Your task to perform on an android device: Show me recent news Image 0: 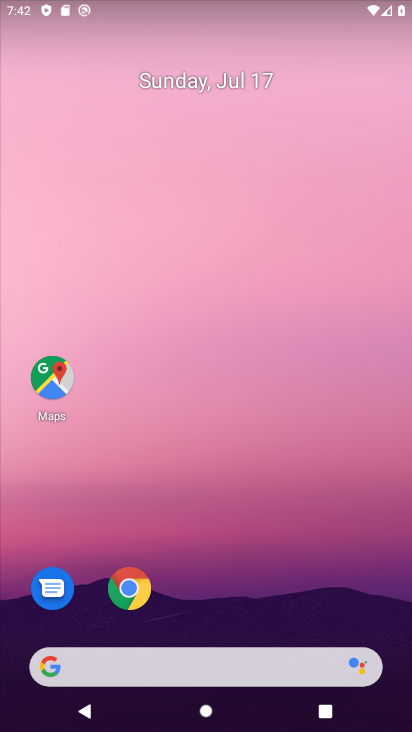
Step 0: drag from (304, 591) to (259, 133)
Your task to perform on an android device: Show me recent news Image 1: 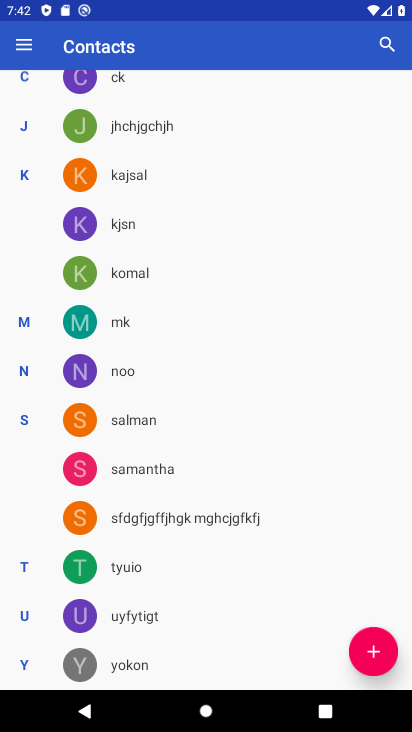
Step 1: press home button
Your task to perform on an android device: Show me recent news Image 2: 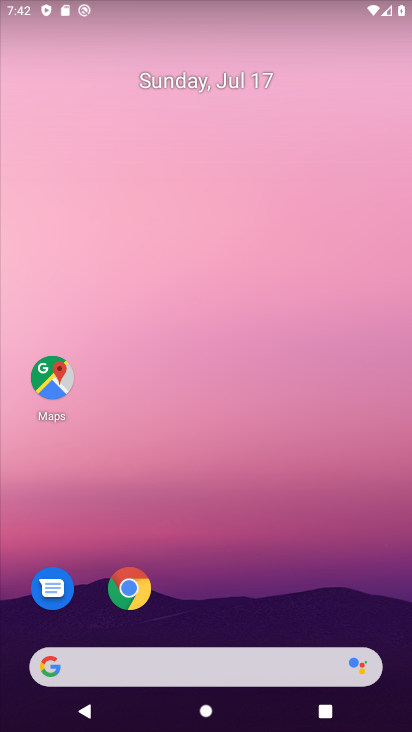
Step 2: click (184, 657)
Your task to perform on an android device: Show me recent news Image 3: 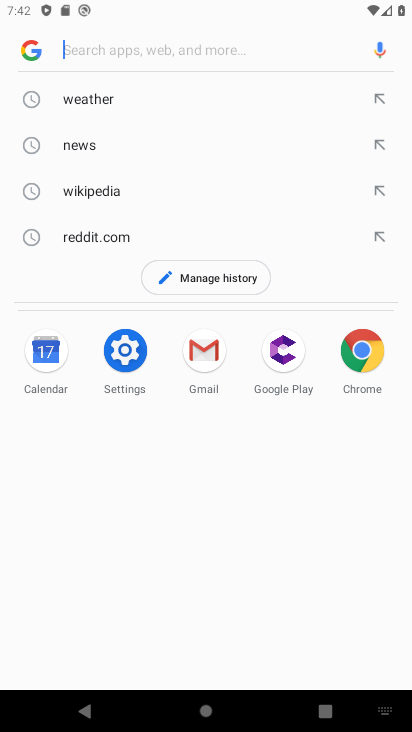
Step 3: click (125, 132)
Your task to perform on an android device: Show me recent news Image 4: 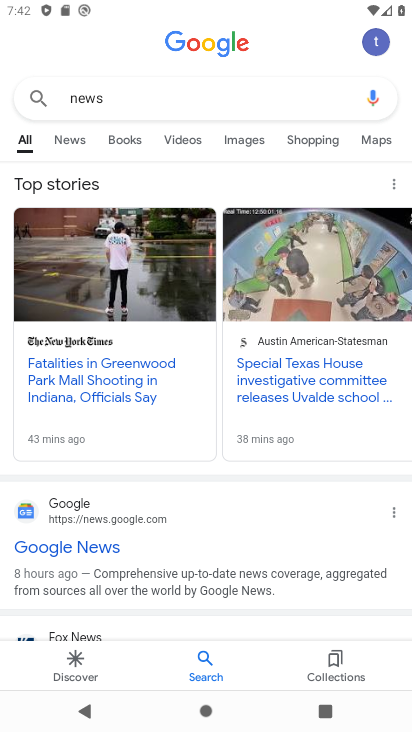
Step 4: task complete